Your task to perform on an android device: toggle javascript in the chrome app Image 0: 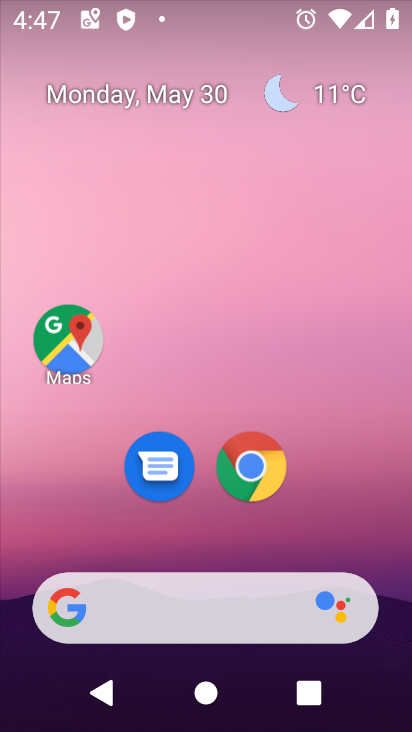
Step 0: click (256, 462)
Your task to perform on an android device: toggle javascript in the chrome app Image 1: 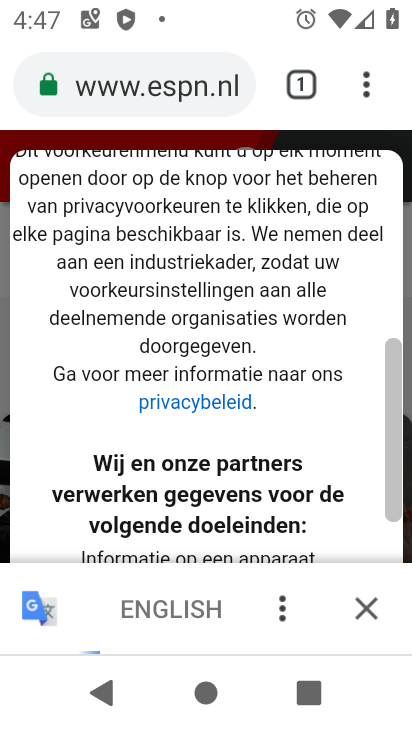
Step 1: click (372, 76)
Your task to perform on an android device: toggle javascript in the chrome app Image 2: 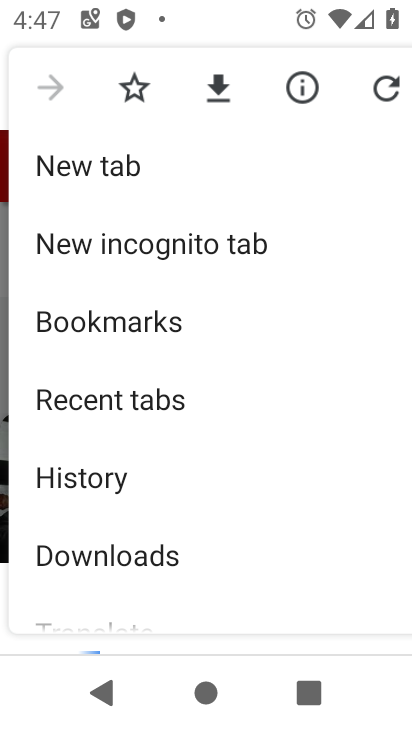
Step 2: drag from (219, 510) to (247, 106)
Your task to perform on an android device: toggle javascript in the chrome app Image 3: 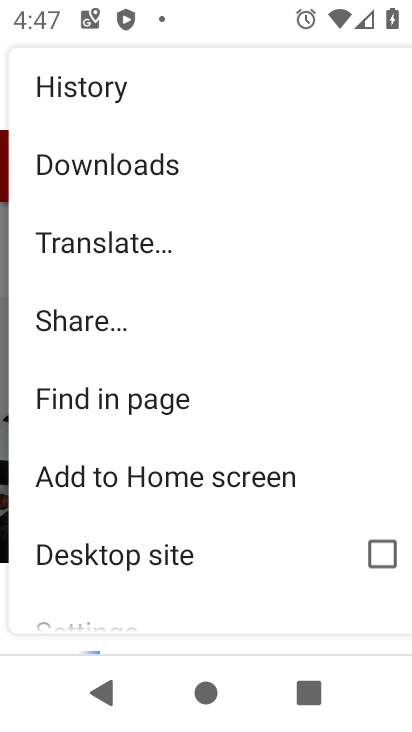
Step 3: drag from (169, 544) to (239, 167)
Your task to perform on an android device: toggle javascript in the chrome app Image 4: 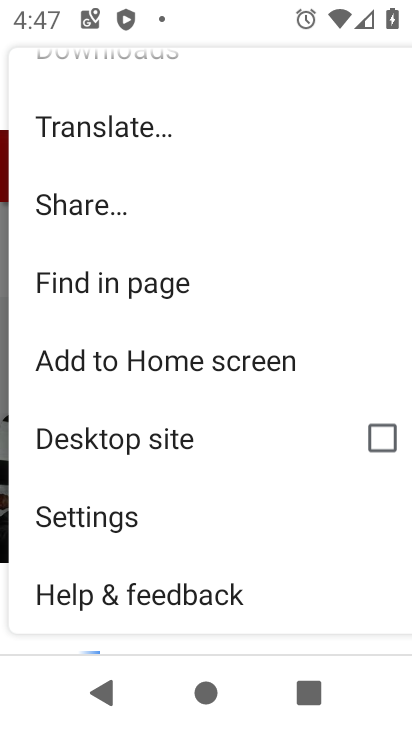
Step 4: click (129, 508)
Your task to perform on an android device: toggle javascript in the chrome app Image 5: 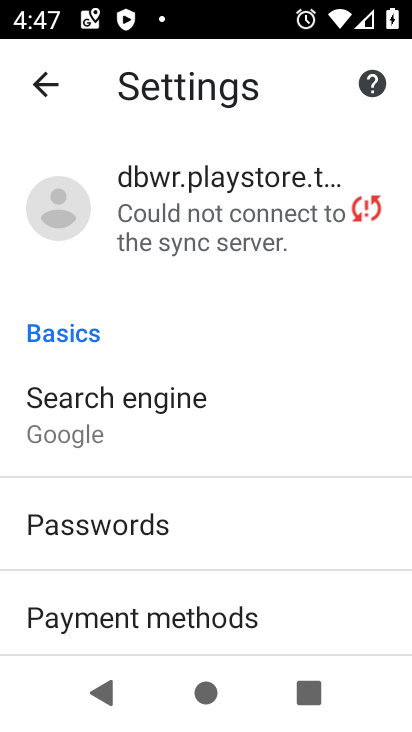
Step 5: drag from (237, 506) to (241, 112)
Your task to perform on an android device: toggle javascript in the chrome app Image 6: 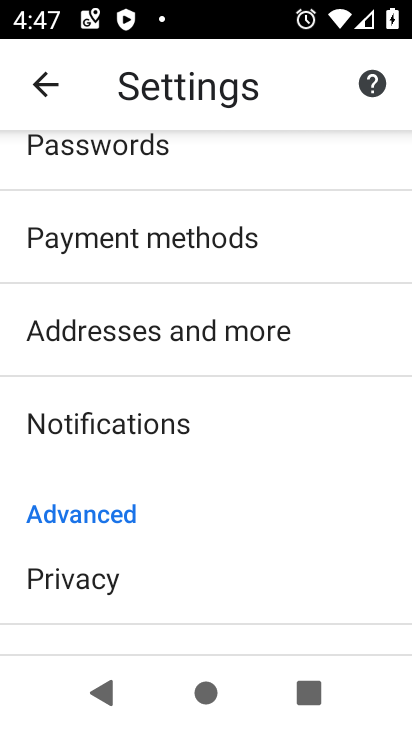
Step 6: drag from (220, 441) to (262, 121)
Your task to perform on an android device: toggle javascript in the chrome app Image 7: 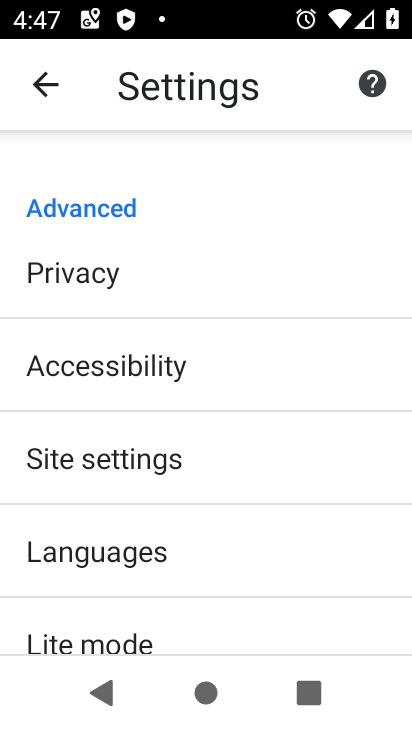
Step 7: click (185, 451)
Your task to perform on an android device: toggle javascript in the chrome app Image 8: 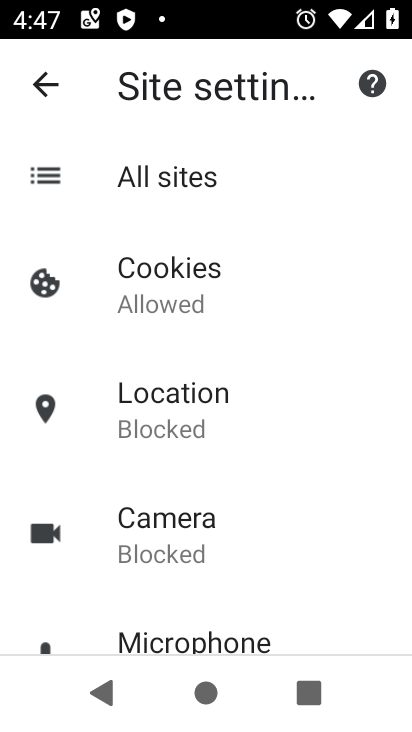
Step 8: drag from (216, 514) to (257, 159)
Your task to perform on an android device: toggle javascript in the chrome app Image 9: 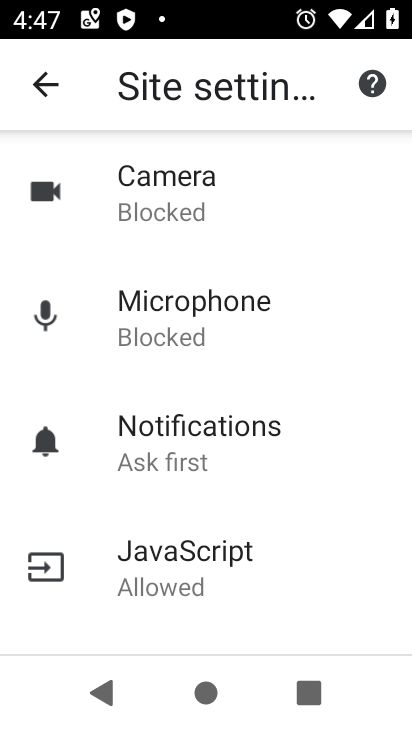
Step 9: click (195, 555)
Your task to perform on an android device: toggle javascript in the chrome app Image 10: 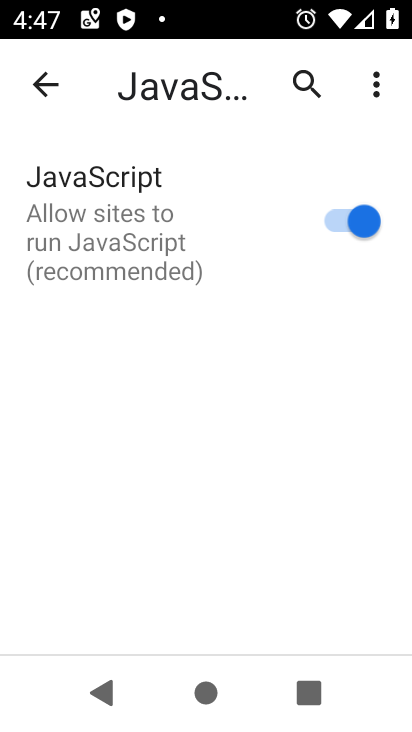
Step 10: click (352, 226)
Your task to perform on an android device: toggle javascript in the chrome app Image 11: 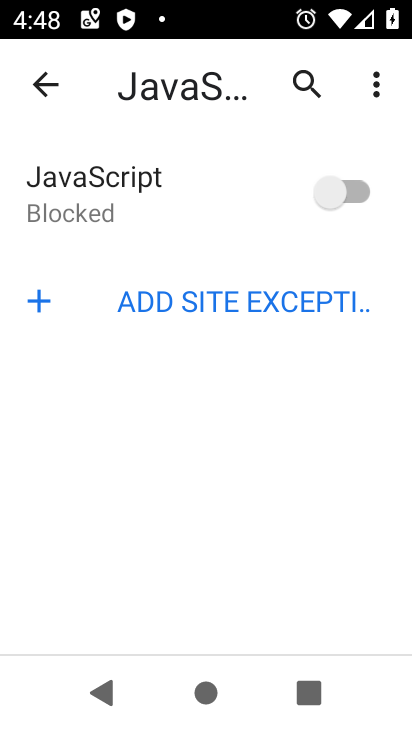
Step 11: task complete